Your task to perform on an android device: Open the calendar and show me this week's events? Image 0: 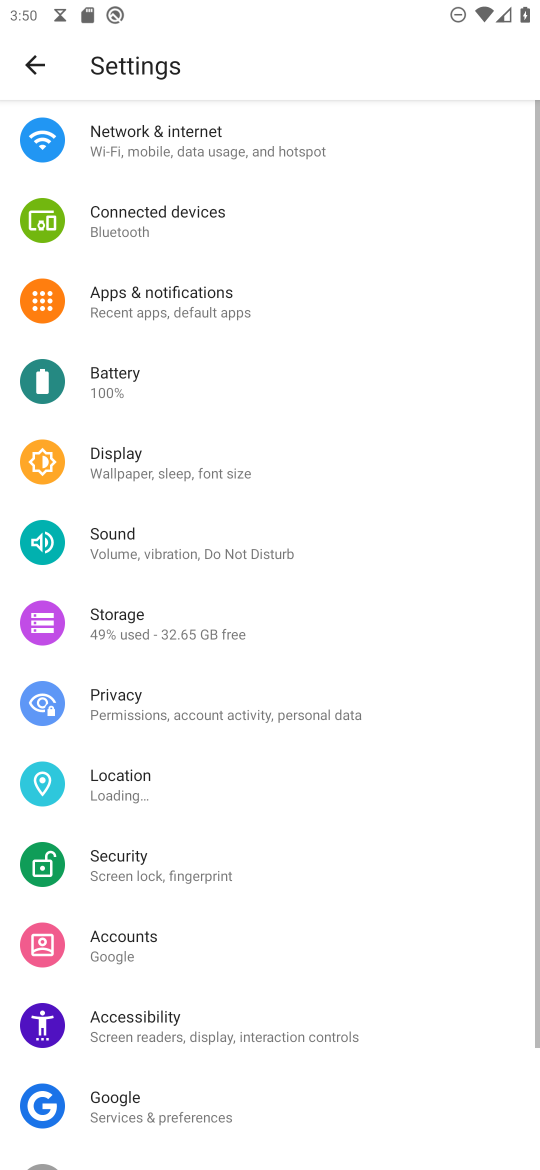
Step 0: press home button
Your task to perform on an android device: Open the calendar and show me this week's events? Image 1: 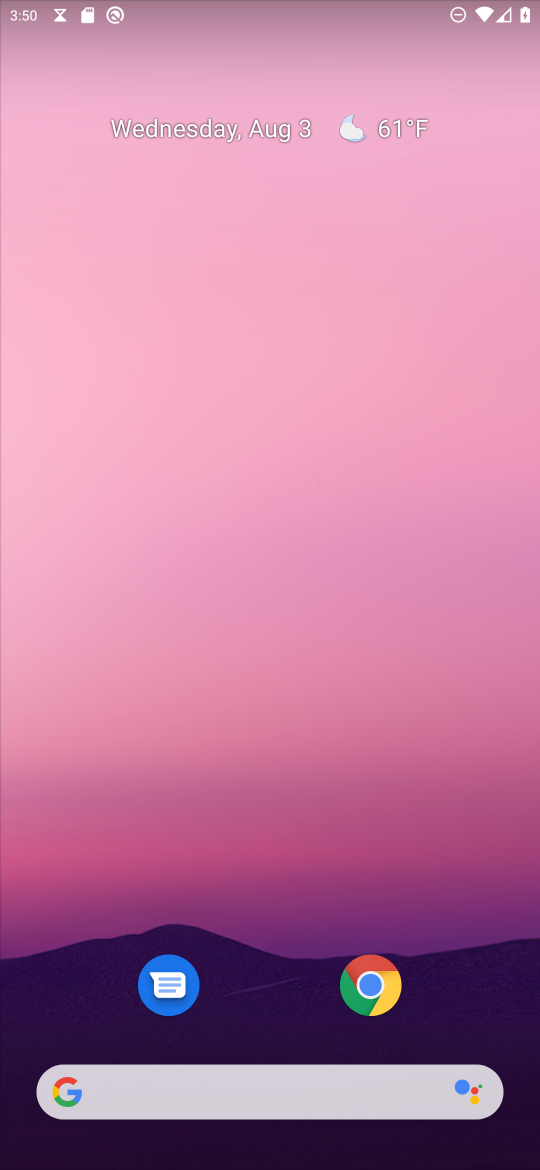
Step 1: drag from (267, 927) to (394, 43)
Your task to perform on an android device: Open the calendar and show me this week's events? Image 2: 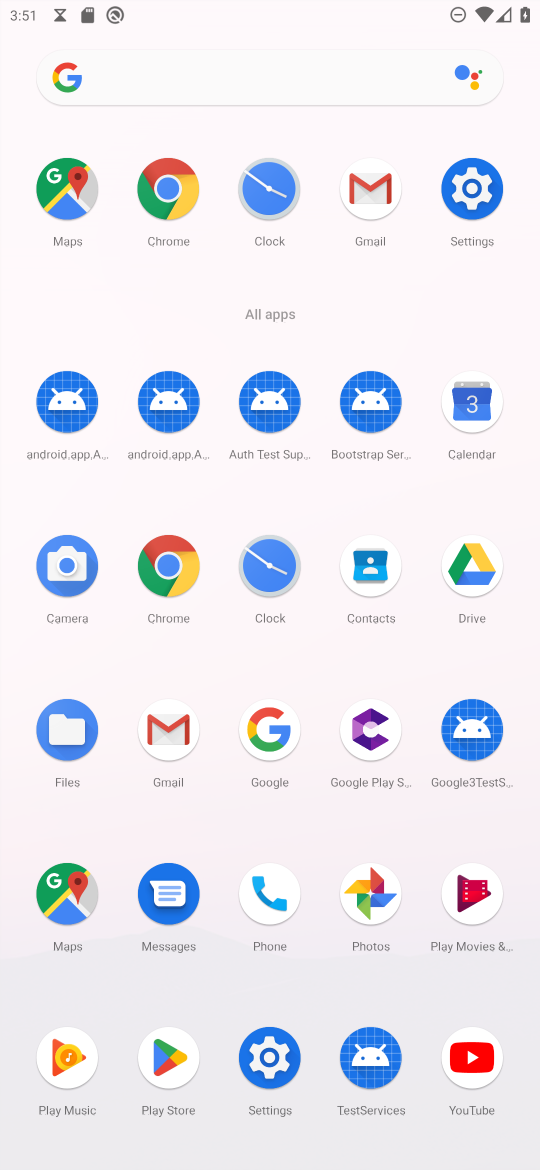
Step 2: click (471, 413)
Your task to perform on an android device: Open the calendar and show me this week's events? Image 3: 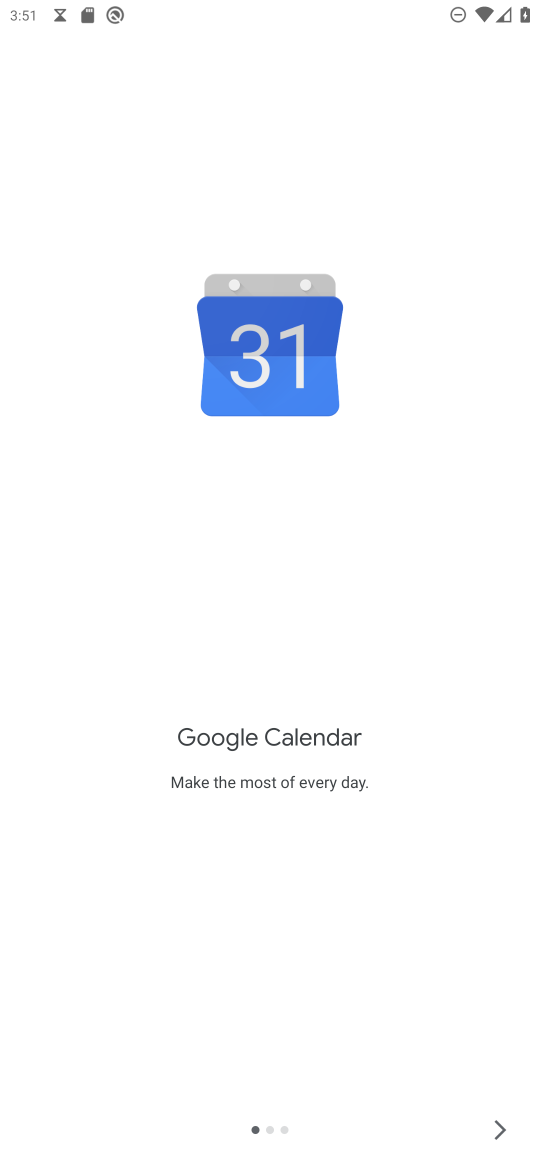
Step 3: click (492, 1133)
Your task to perform on an android device: Open the calendar and show me this week's events? Image 4: 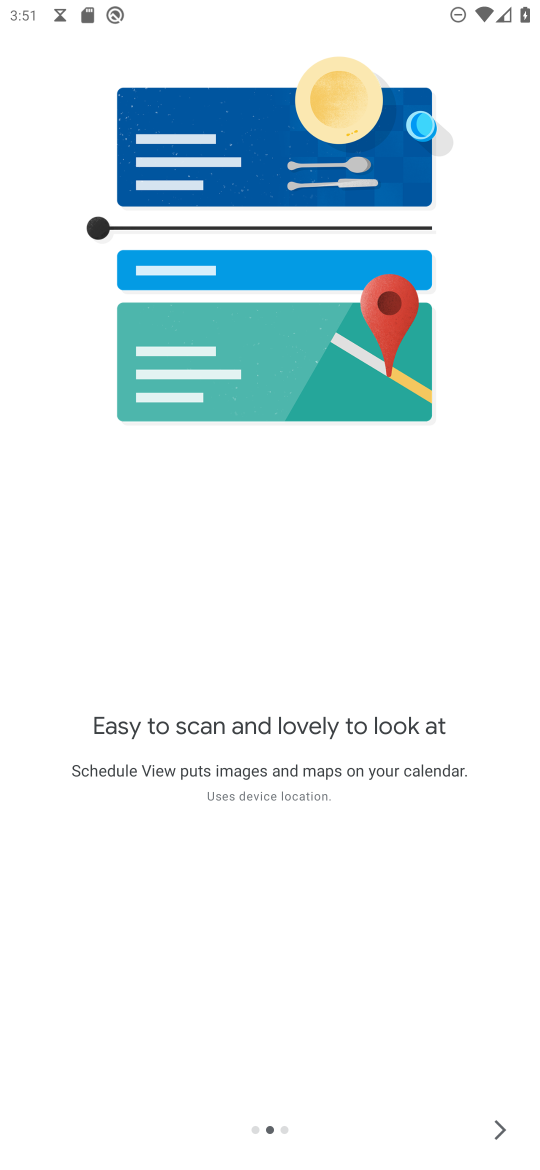
Step 4: click (492, 1133)
Your task to perform on an android device: Open the calendar and show me this week's events? Image 5: 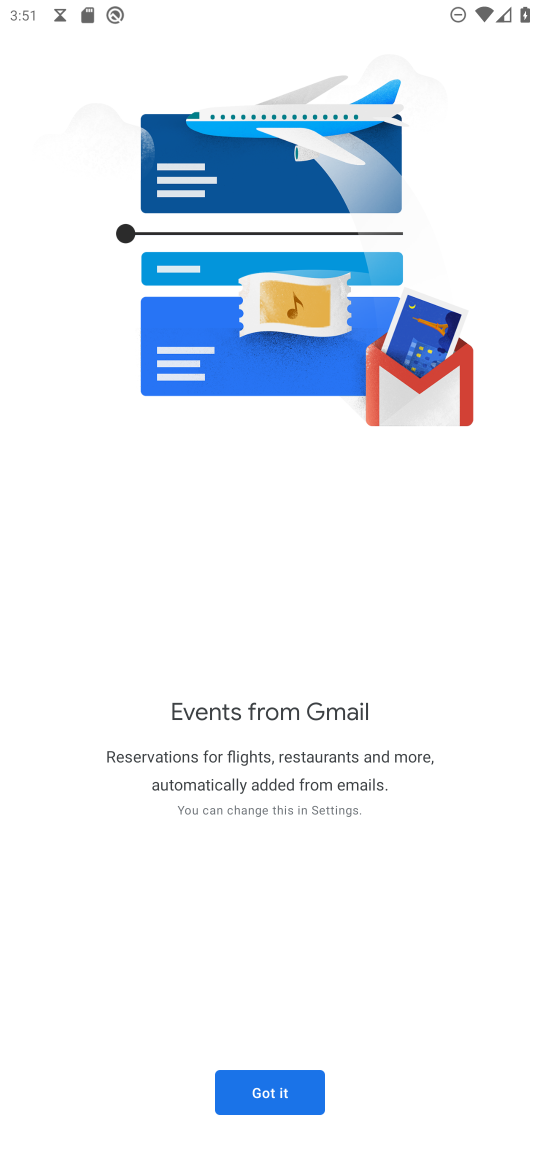
Step 5: click (261, 1102)
Your task to perform on an android device: Open the calendar and show me this week's events? Image 6: 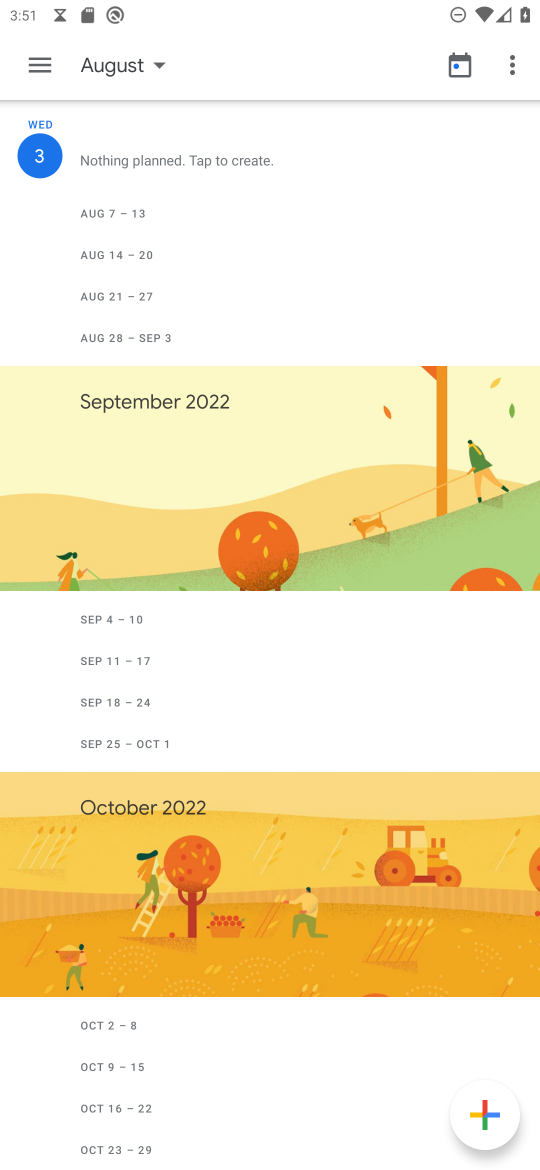
Step 6: click (114, 66)
Your task to perform on an android device: Open the calendar and show me this week's events? Image 7: 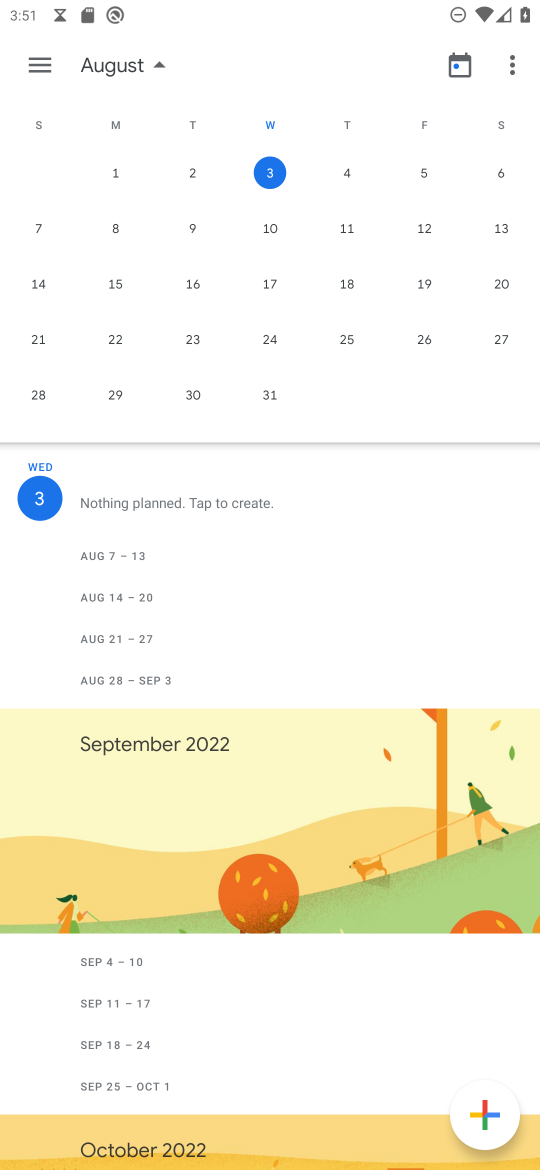
Step 7: click (267, 178)
Your task to perform on an android device: Open the calendar and show me this week's events? Image 8: 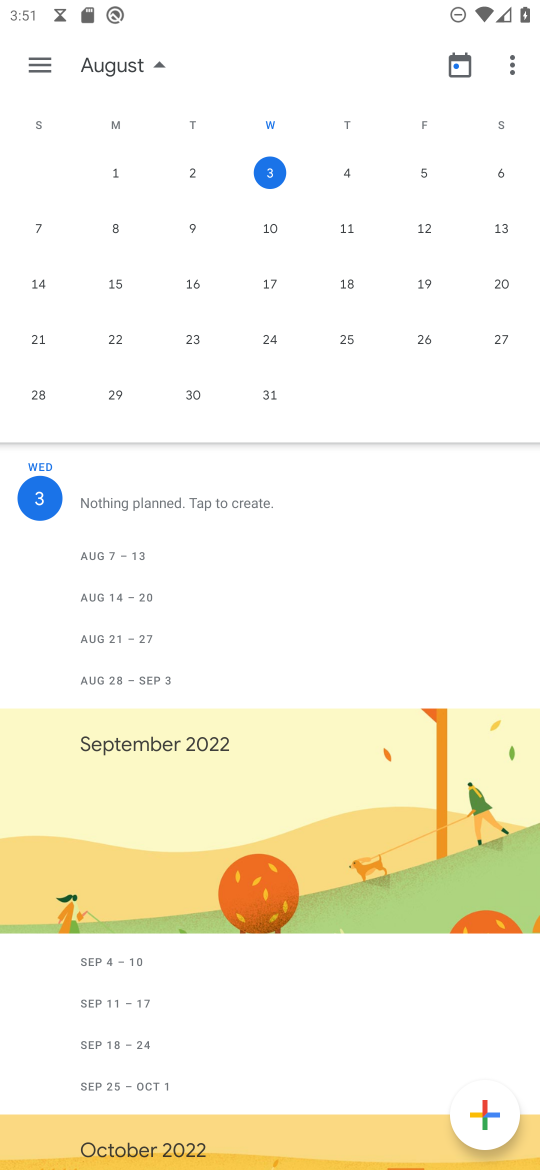
Step 8: click (348, 178)
Your task to perform on an android device: Open the calendar and show me this week's events? Image 9: 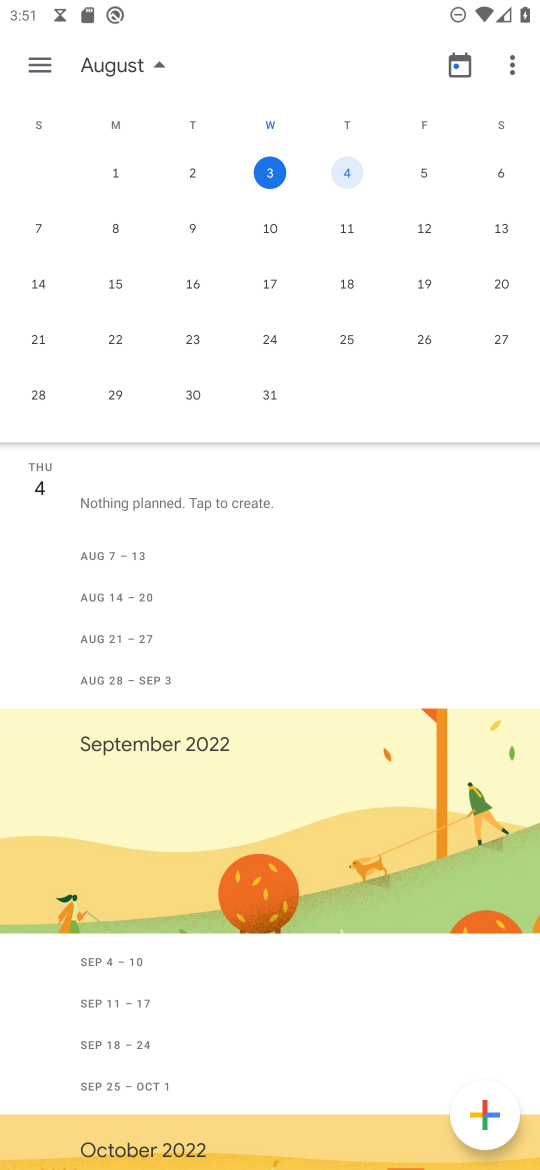
Step 9: click (423, 182)
Your task to perform on an android device: Open the calendar and show me this week's events? Image 10: 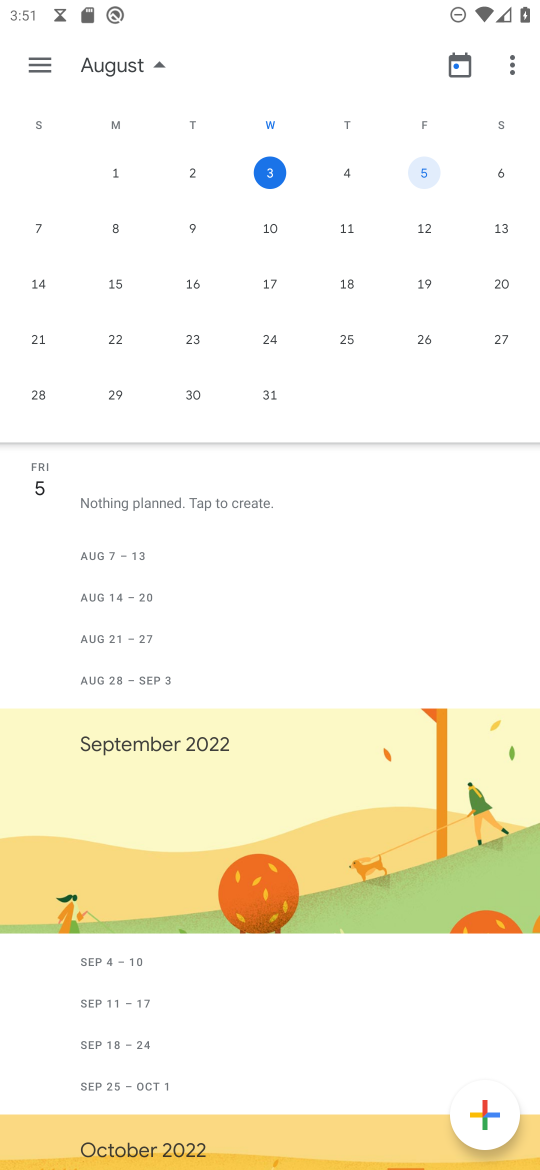
Step 10: click (513, 164)
Your task to perform on an android device: Open the calendar and show me this week's events? Image 11: 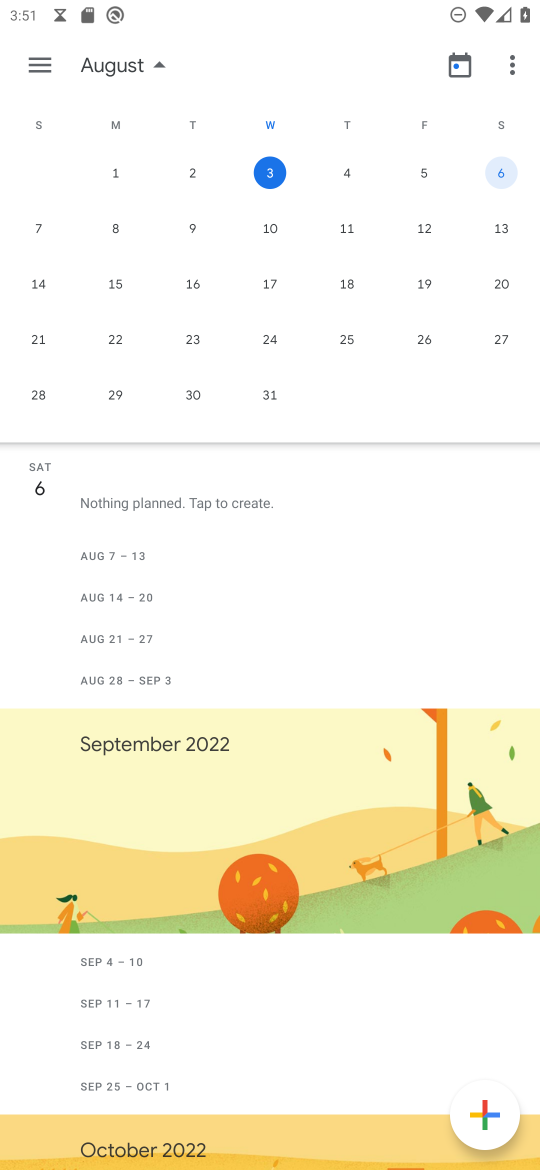
Step 11: task complete